Your task to perform on an android device: change your default location settings in chrome Image 0: 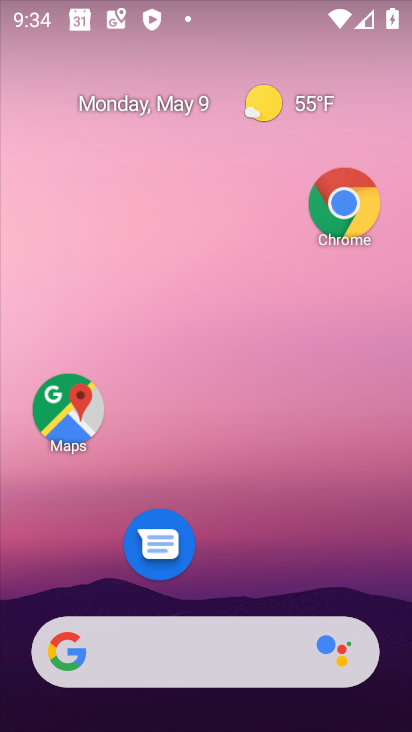
Step 0: click (374, 210)
Your task to perform on an android device: change your default location settings in chrome Image 1: 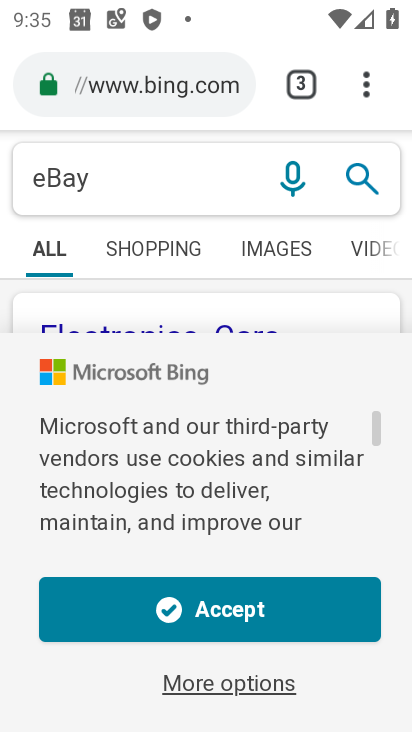
Step 1: click (148, 601)
Your task to perform on an android device: change your default location settings in chrome Image 2: 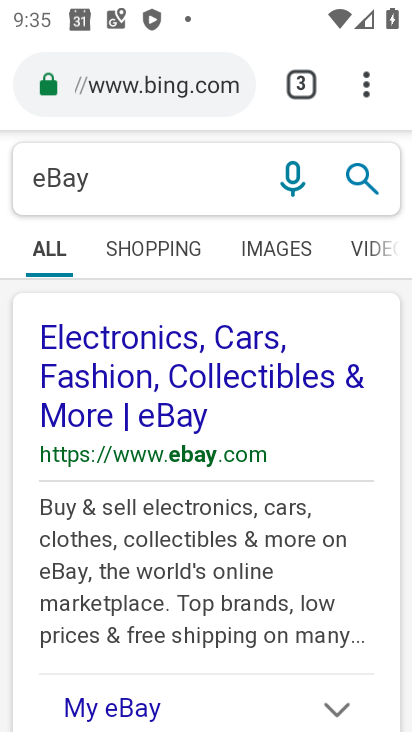
Step 2: drag from (369, 80) to (78, 609)
Your task to perform on an android device: change your default location settings in chrome Image 3: 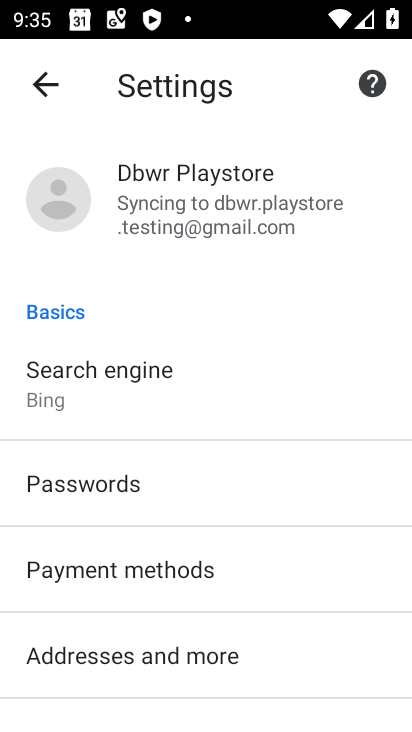
Step 3: drag from (183, 575) to (235, 280)
Your task to perform on an android device: change your default location settings in chrome Image 4: 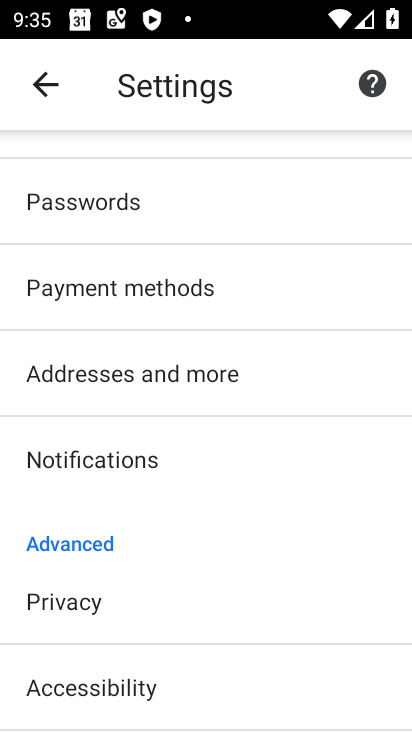
Step 4: drag from (108, 638) to (209, 267)
Your task to perform on an android device: change your default location settings in chrome Image 5: 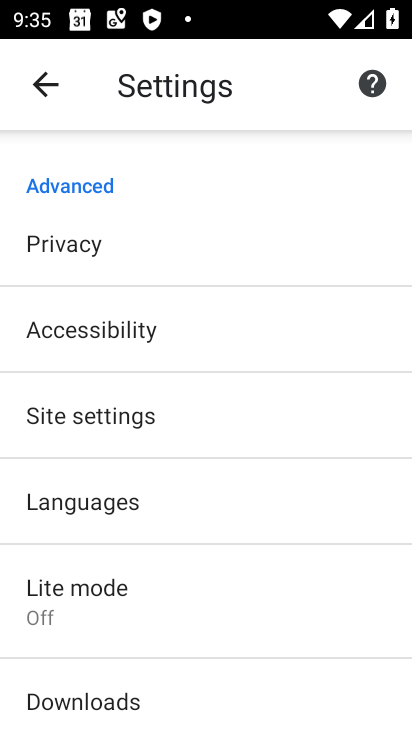
Step 5: drag from (92, 692) to (153, 401)
Your task to perform on an android device: change your default location settings in chrome Image 6: 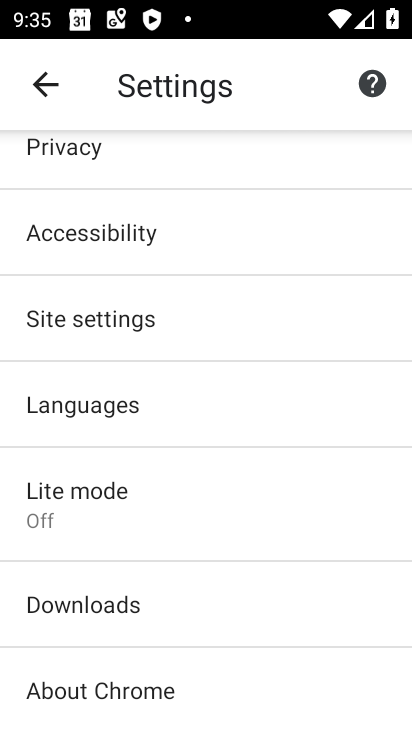
Step 6: click (129, 302)
Your task to perform on an android device: change your default location settings in chrome Image 7: 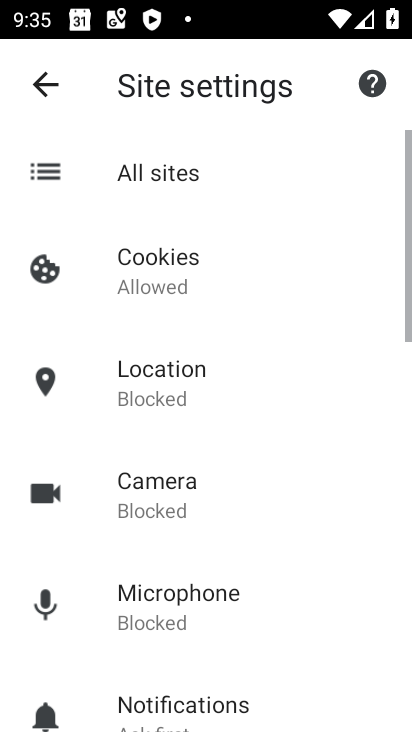
Step 7: click (153, 368)
Your task to perform on an android device: change your default location settings in chrome Image 8: 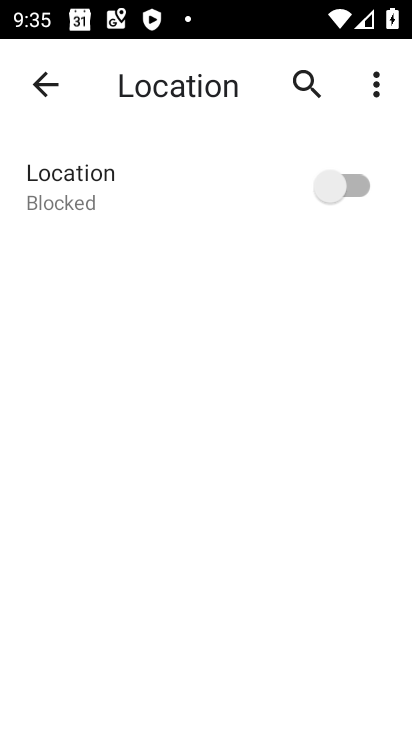
Step 8: click (346, 178)
Your task to perform on an android device: change your default location settings in chrome Image 9: 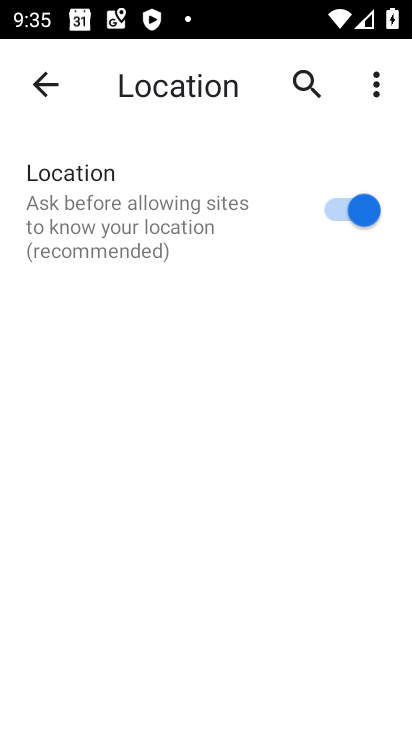
Step 9: task complete